Your task to perform on an android device: Set the phone to "Do not disturb". Image 0: 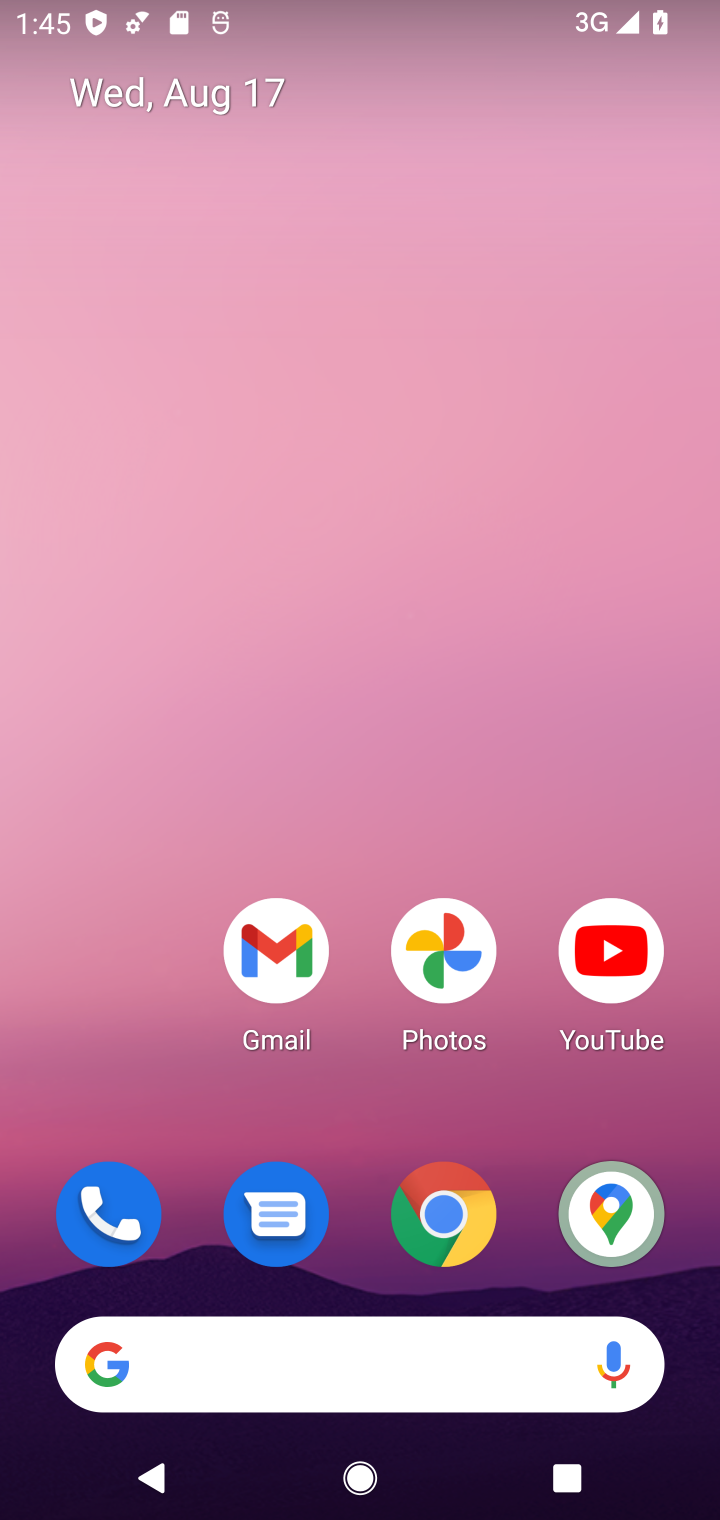
Step 0: drag from (368, 222) to (338, 38)
Your task to perform on an android device: Set the phone to "Do not disturb". Image 1: 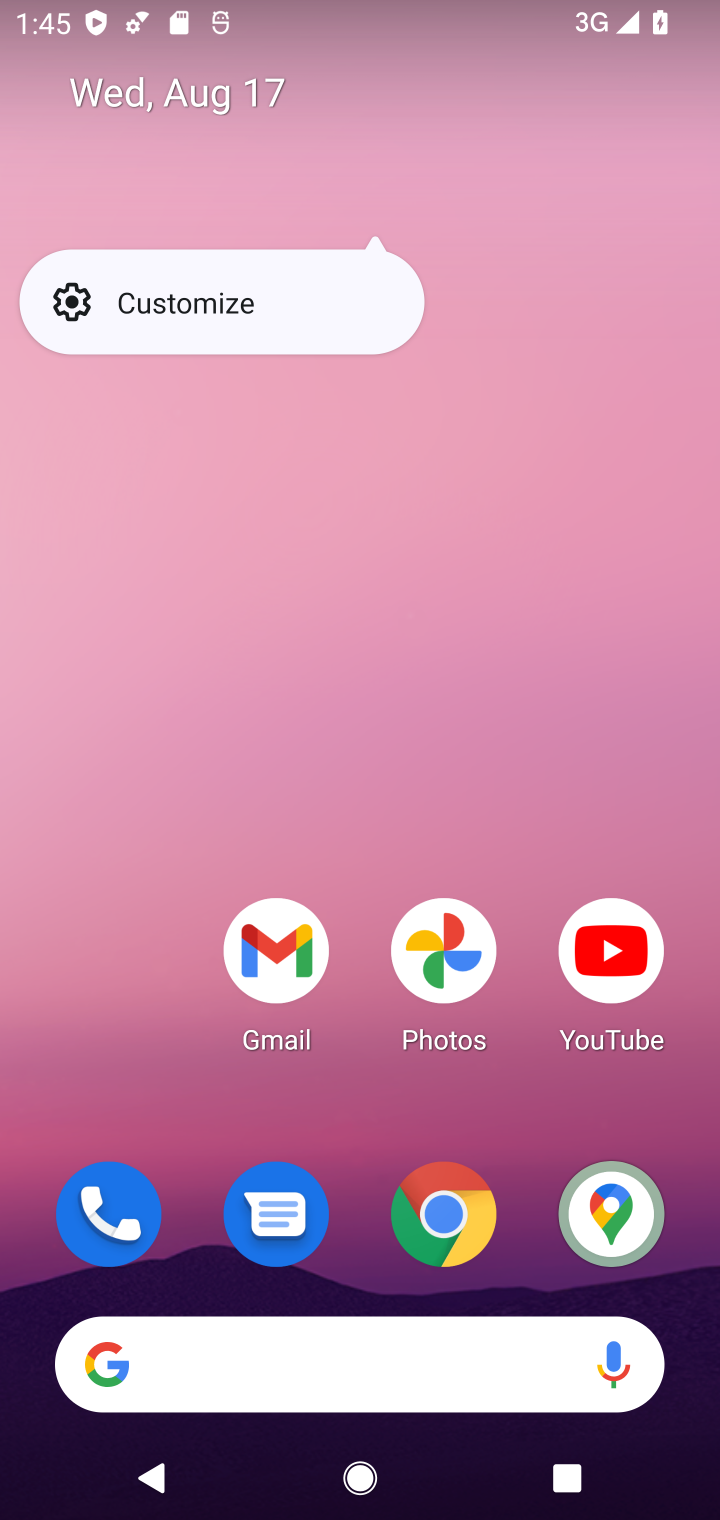
Step 1: drag from (164, 1094) to (177, 235)
Your task to perform on an android device: Set the phone to "Do not disturb". Image 2: 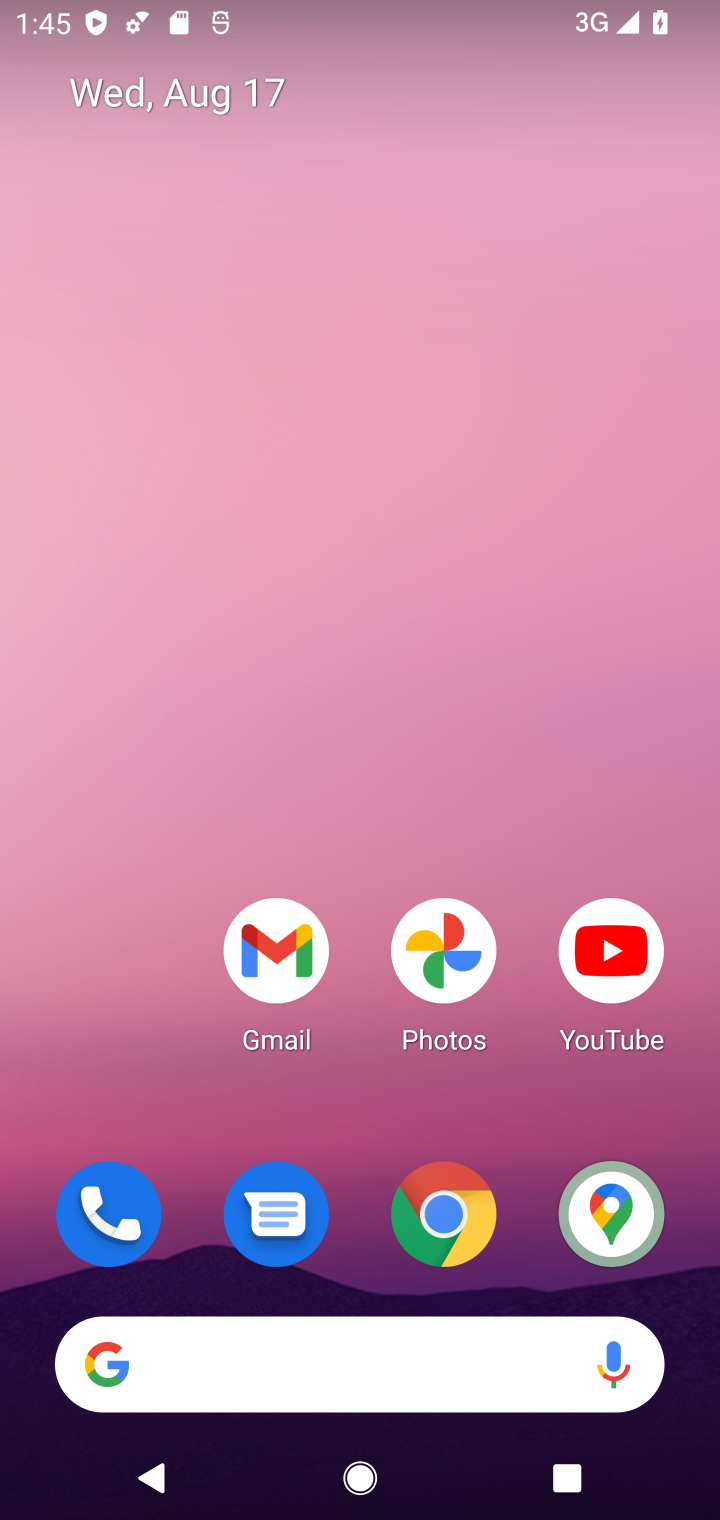
Step 2: click (384, 729)
Your task to perform on an android device: Set the phone to "Do not disturb". Image 3: 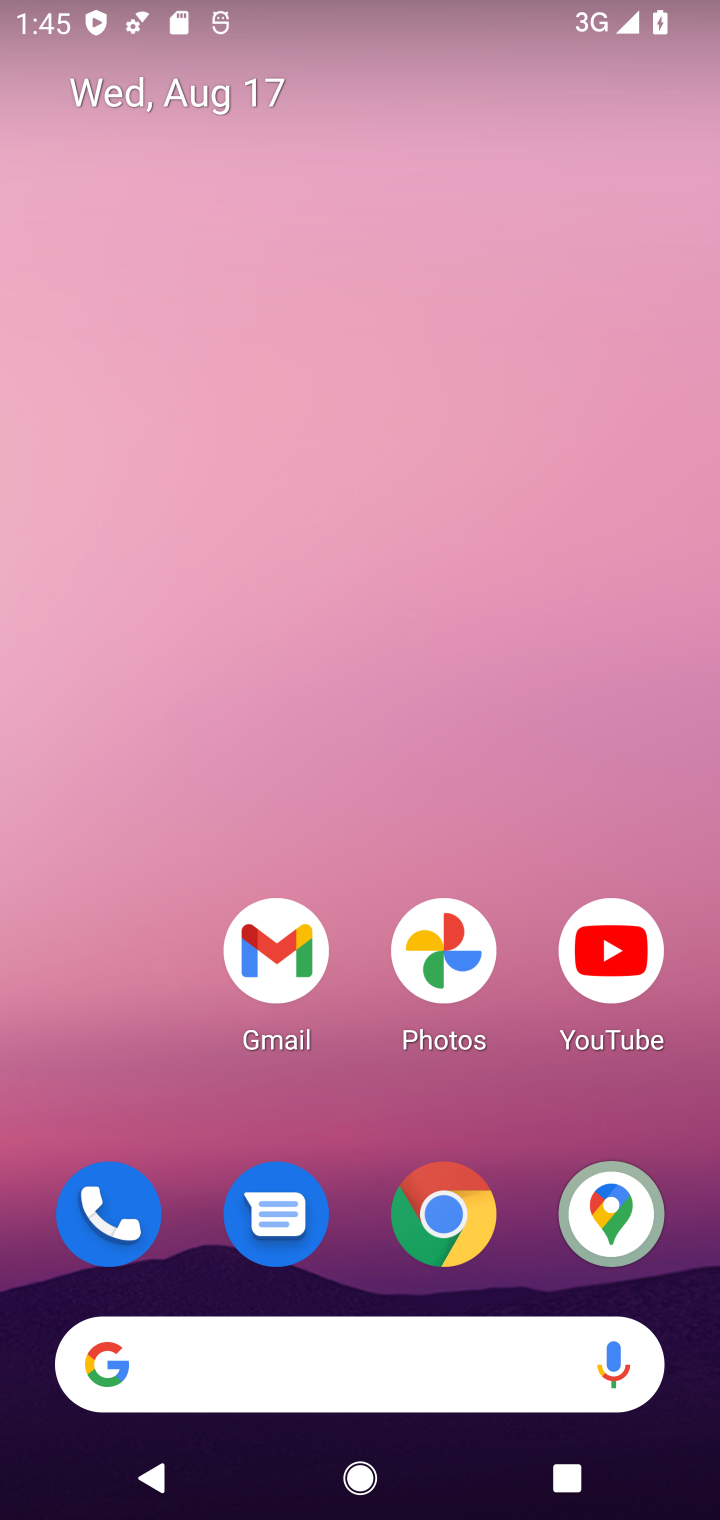
Step 3: drag from (366, 1218) to (348, 11)
Your task to perform on an android device: Set the phone to "Do not disturb". Image 4: 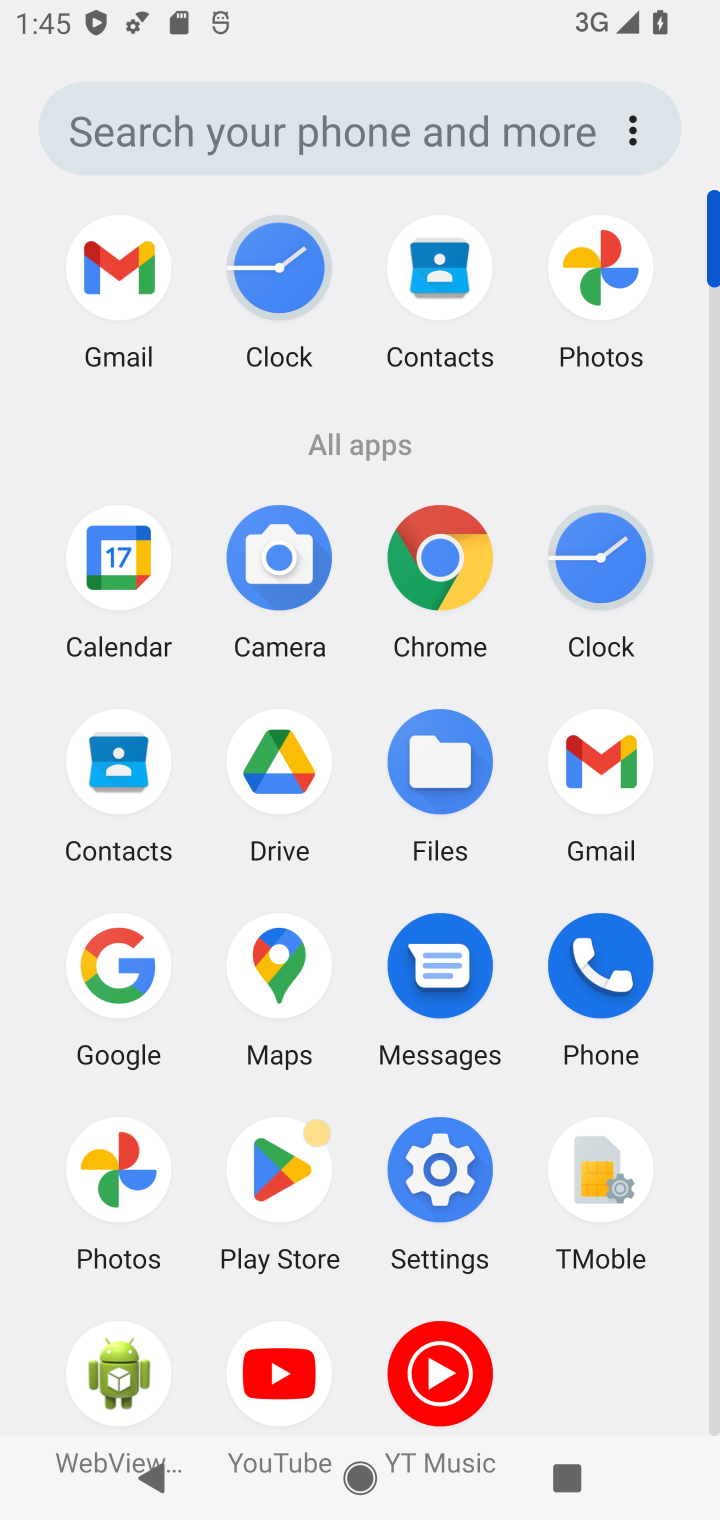
Step 4: click (447, 1174)
Your task to perform on an android device: Set the phone to "Do not disturb". Image 5: 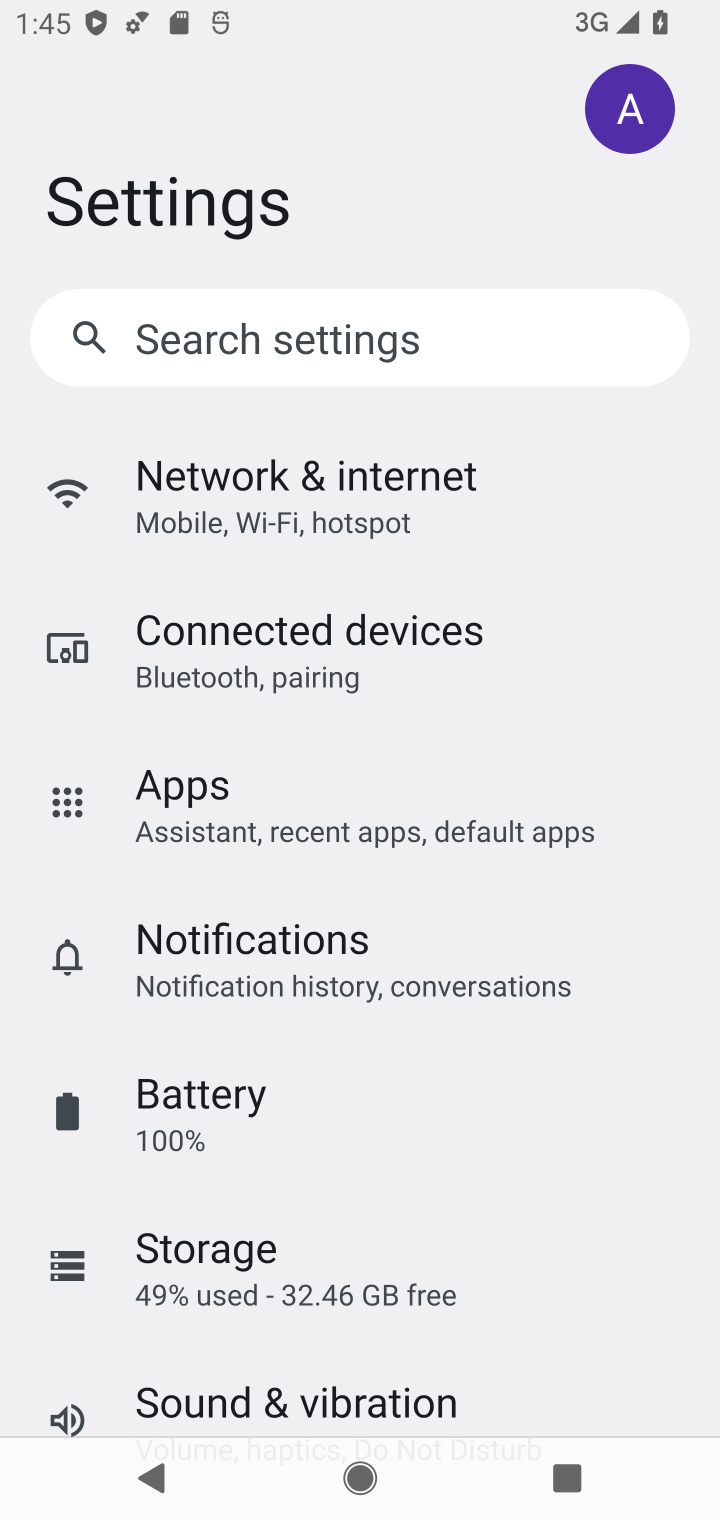
Step 5: drag from (389, 1242) to (277, 641)
Your task to perform on an android device: Set the phone to "Do not disturb". Image 6: 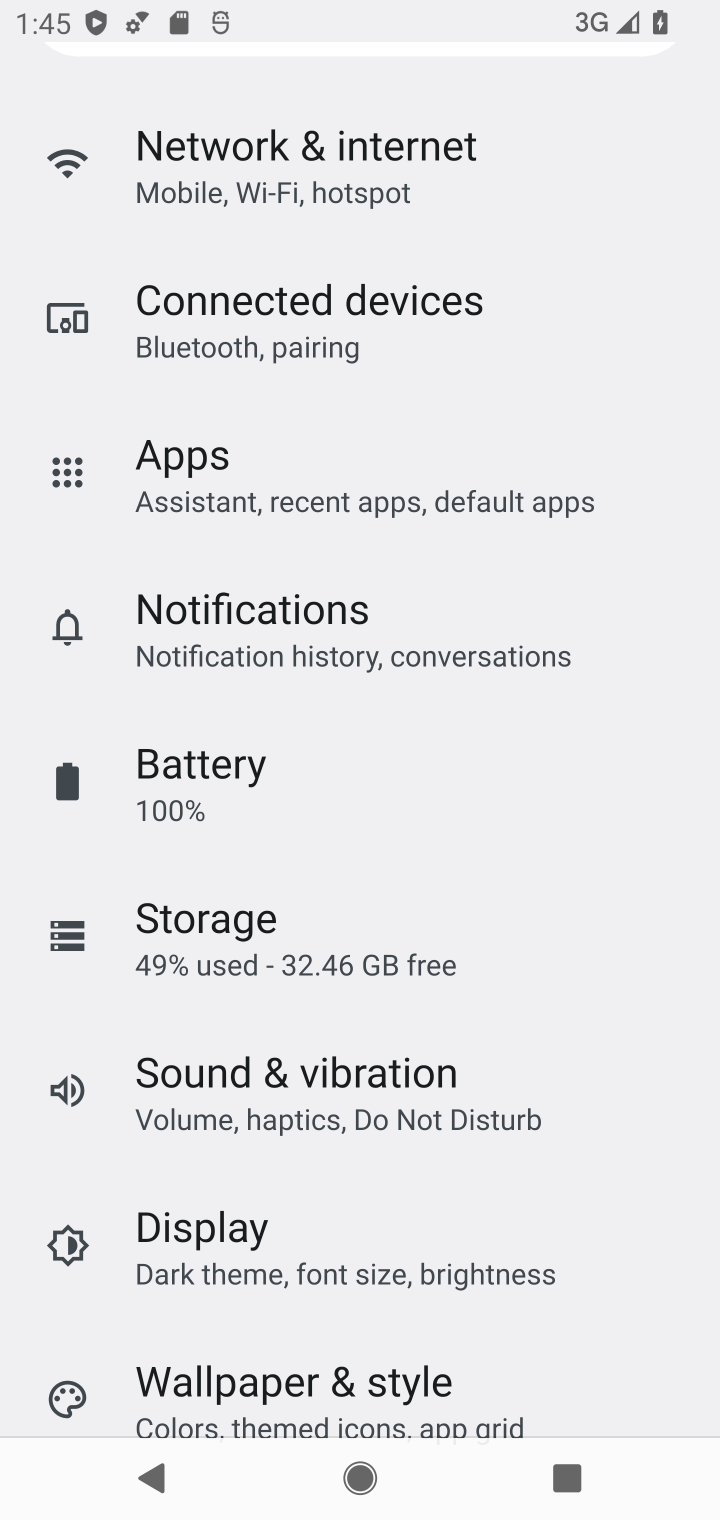
Step 6: click (253, 1070)
Your task to perform on an android device: Set the phone to "Do not disturb". Image 7: 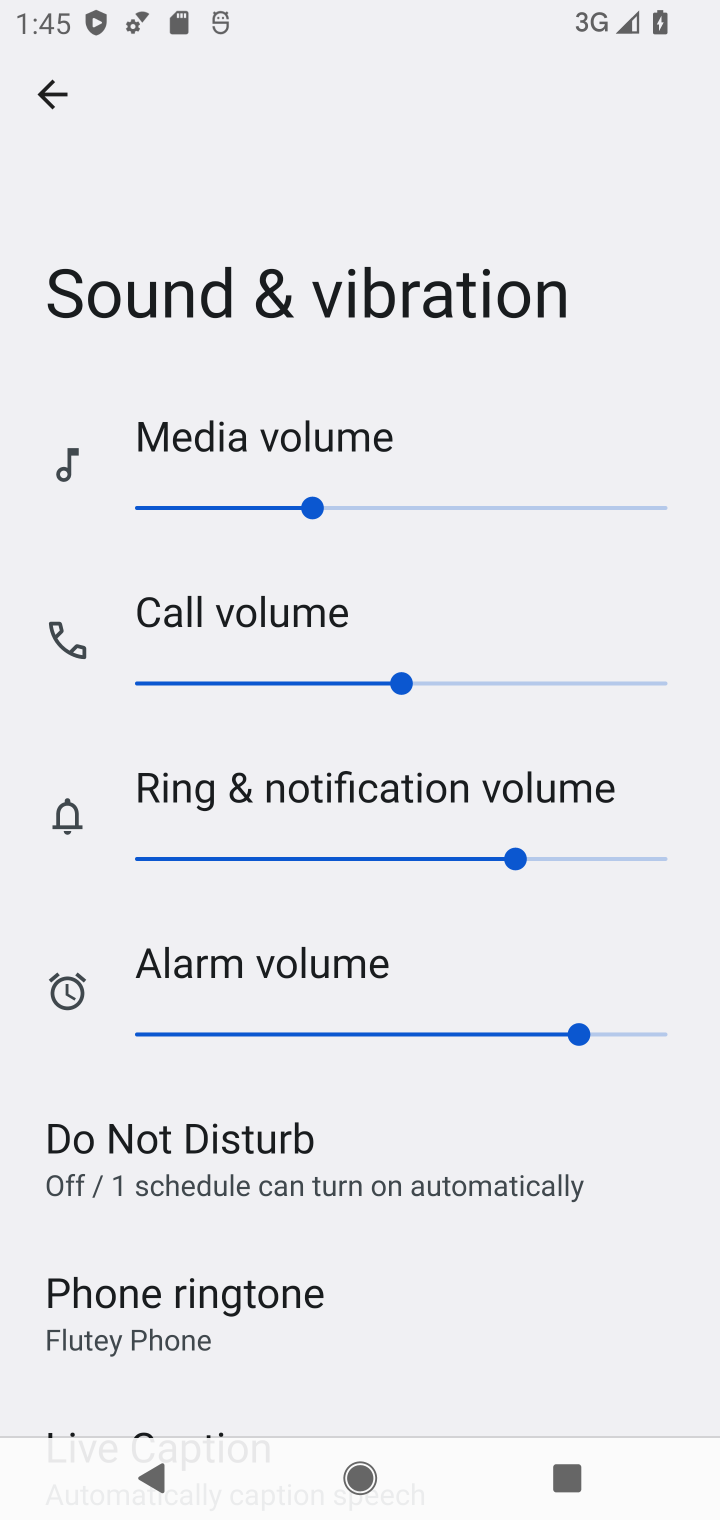
Step 7: click (223, 1143)
Your task to perform on an android device: Set the phone to "Do not disturb". Image 8: 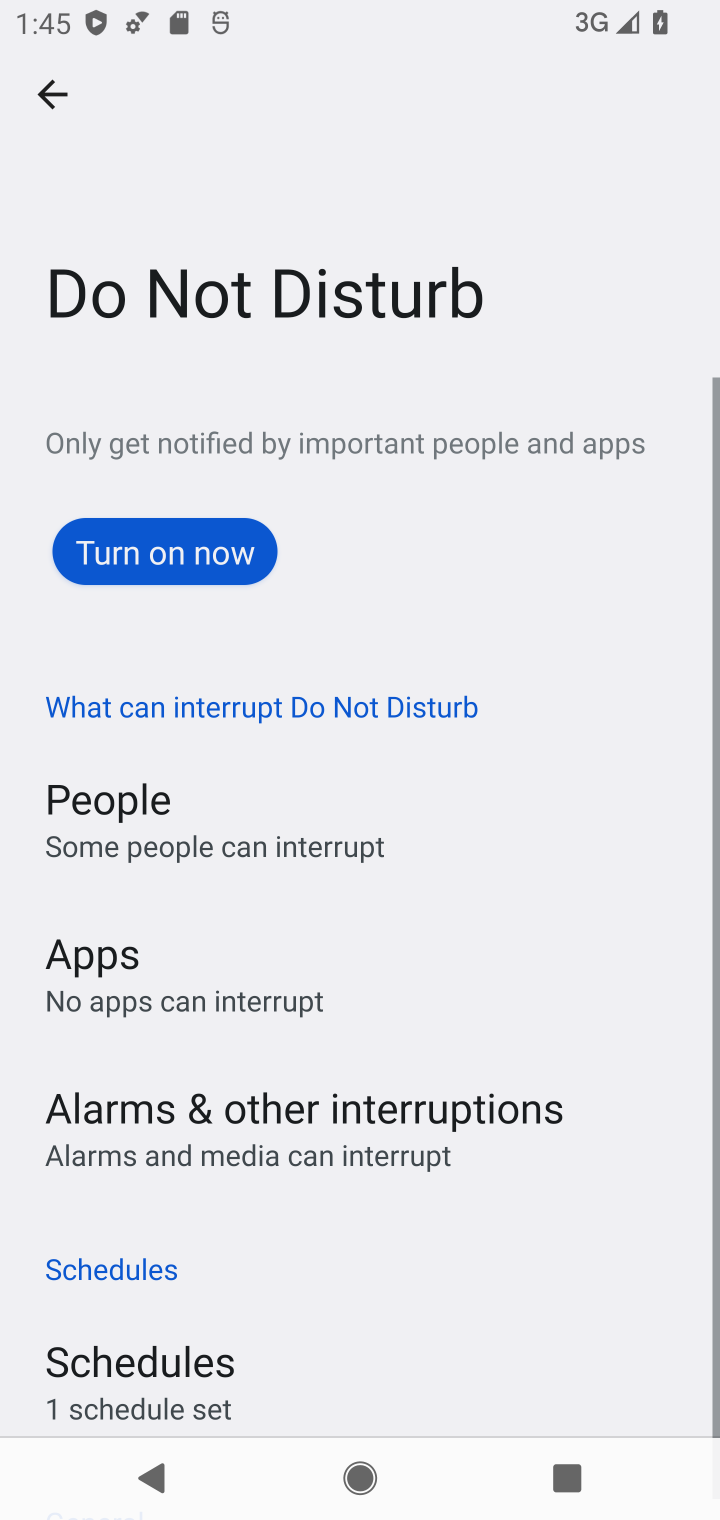
Step 8: click (136, 558)
Your task to perform on an android device: Set the phone to "Do not disturb". Image 9: 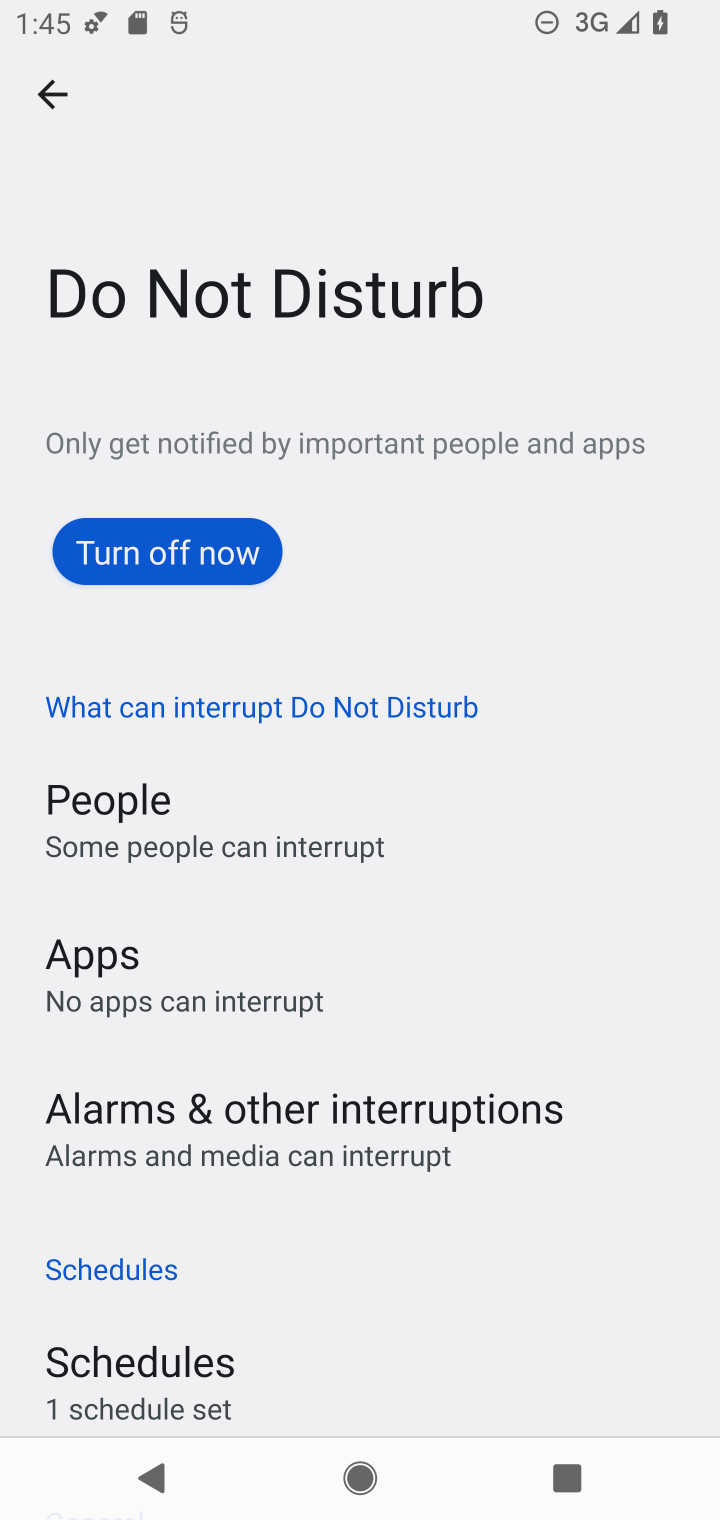
Step 9: task complete